Your task to perform on an android device: Go to Google maps Image 0: 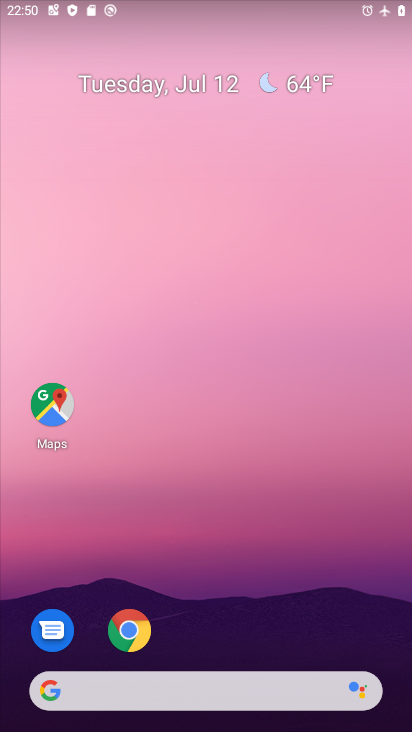
Step 0: drag from (205, 666) to (169, 81)
Your task to perform on an android device: Go to Google maps Image 1: 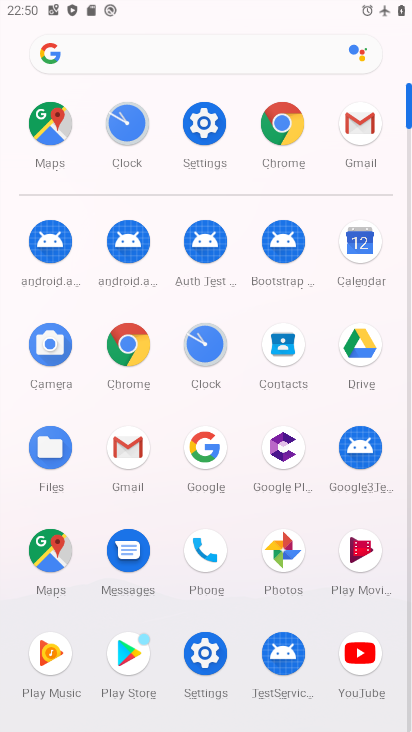
Step 1: click (64, 135)
Your task to perform on an android device: Go to Google maps Image 2: 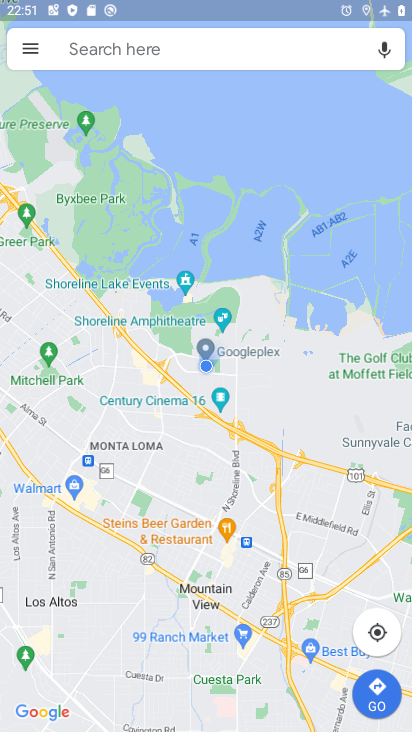
Step 2: task complete